Your task to perform on an android device: Toggle the flashlight Image 0: 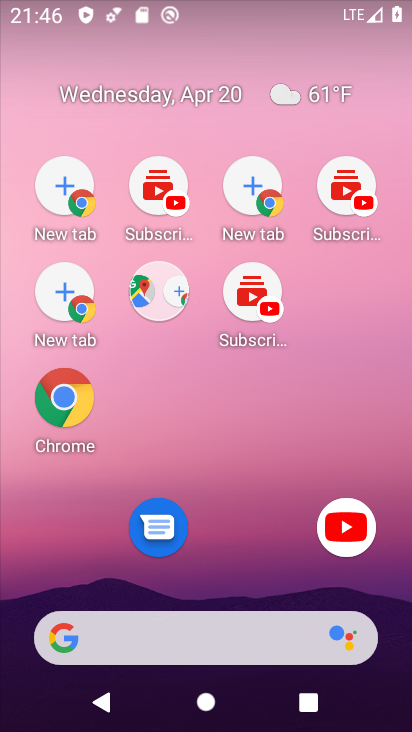
Step 0: drag from (257, 714) to (184, 34)
Your task to perform on an android device: Toggle the flashlight Image 1: 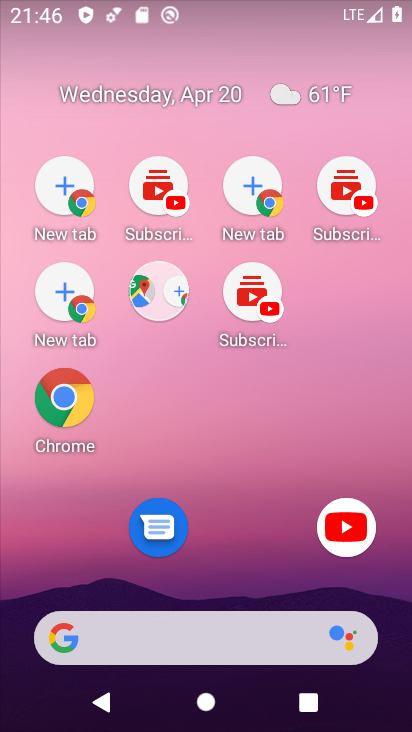
Step 1: drag from (208, 425) to (138, 178)
Your task to perform on an android device: Toggle the flashlight Image 2: 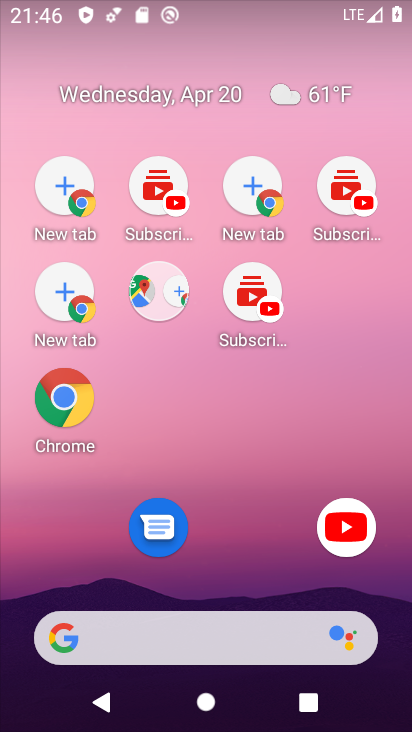
Step 2: drag from (253, 551) to (107, 61)
Your task to perform on an android device: Toggle the flashlight Image 3: 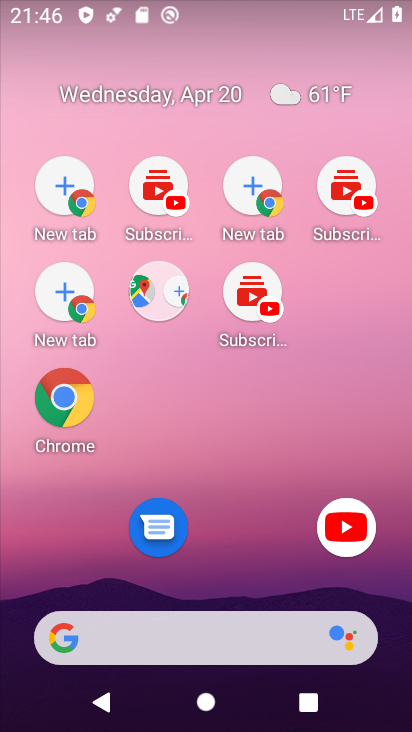
Step 3: drag from (239, 353) to (200, 10)
Your task to perform on an android device: Toggle the flashlight Image 4: 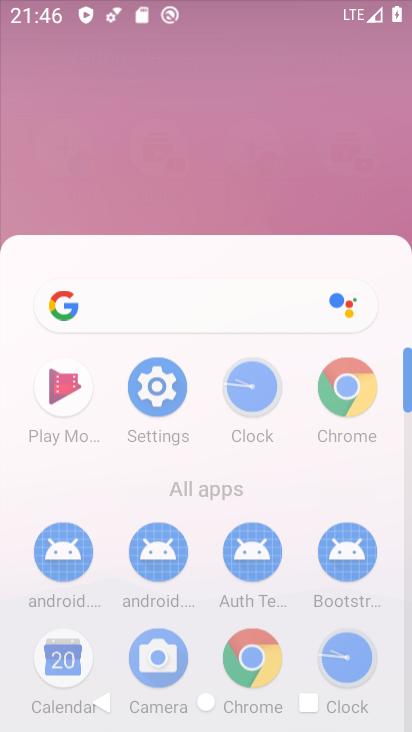
Step 4: drag from (263, 448) to (157, 144)
Your task to perform on an android device: Toggle the flashlight Image 5: 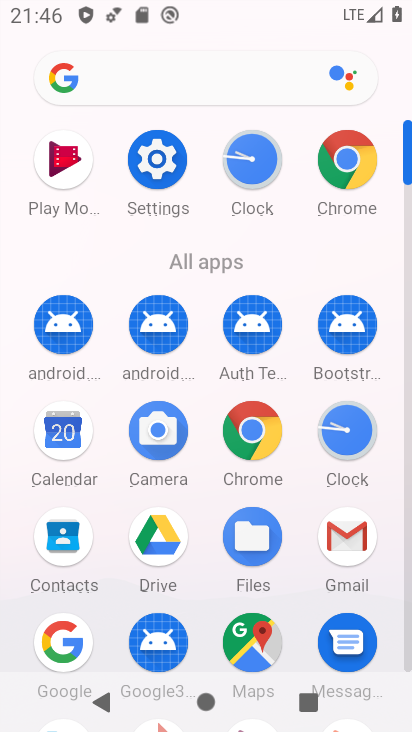
Step 5: drag from (244, 304) to (220, 116)
Your task to perform on an android device: Toggle the flashlight Image 6: 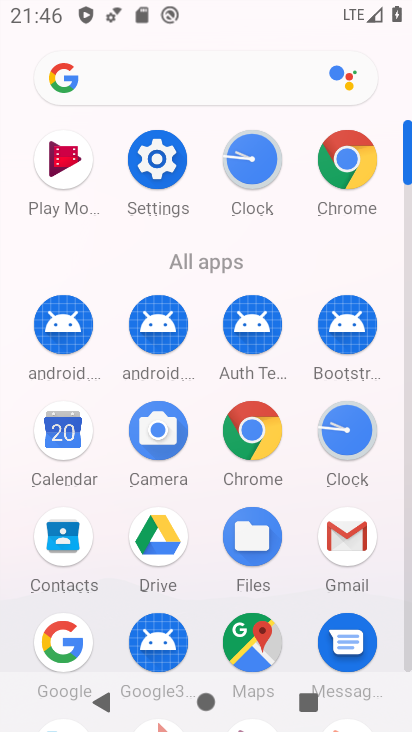
Step 6: drag from (202, 470) to (181, 277)
Your task to perform on an android device: Toggle the flashlight Image 7: 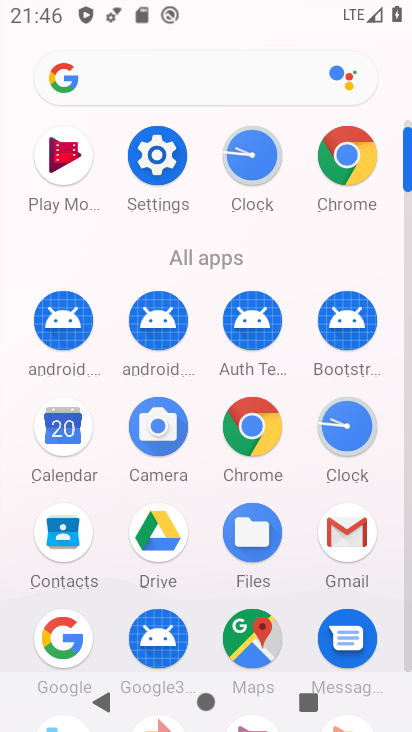
Step 7: drag from (221, 365) to (197, 125)
Your task to perform on an android device: Toggle the flashlight Image 8: 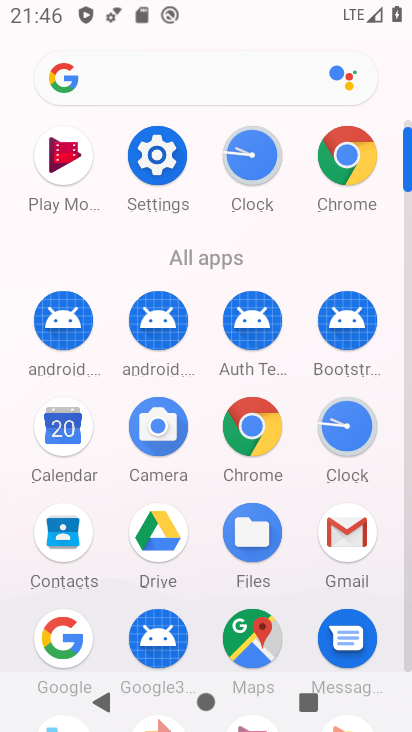
Step 8: drag from (180, 558) to (178, 208)
Your task to perform on an android device: Toggle the flashlight Image 9: 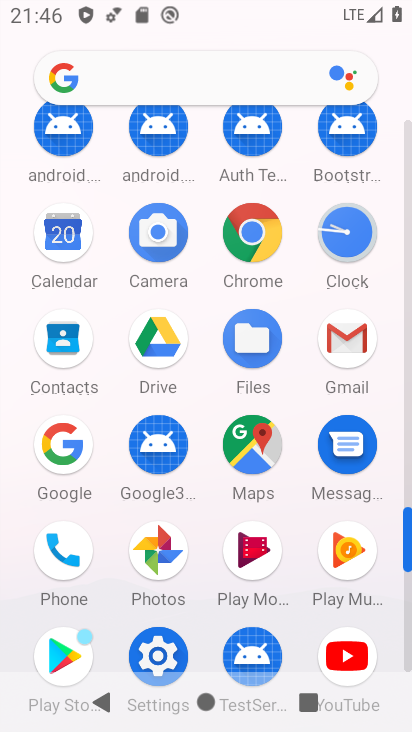
Step 9: drag from (180, 513) to (160, 221)
Your task to perform on an android device: Toggle the flashlight Image 10: 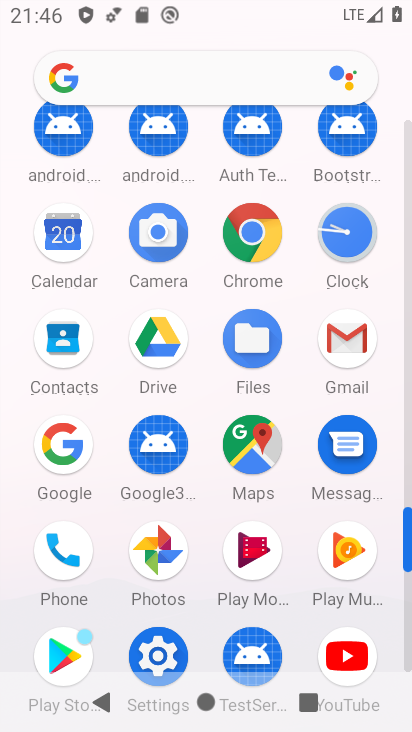
Step 10: drag from (182, 546) to (174, 185)
Your task to perform on an android device: Toggle the flashlight Image 11: 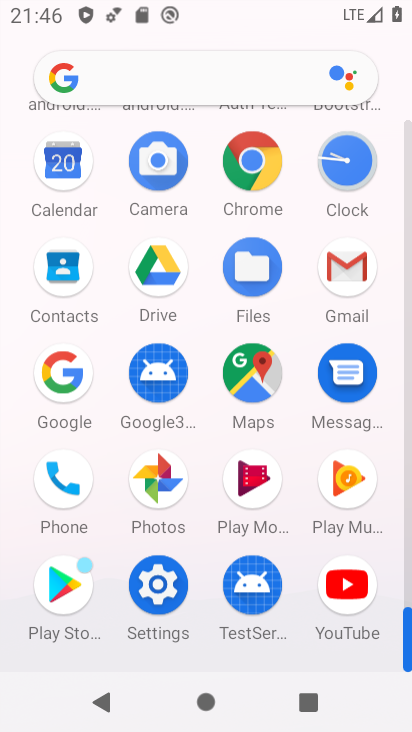
Step 11: click (166, 265)
Your task to perform on an android device: Toggle the flashlight Image 12: 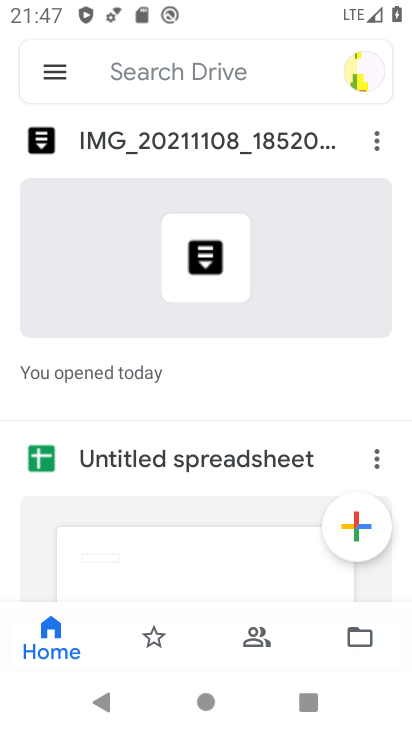
Step 12: task complete